Your task to perform on an android device: empty trash in the gmail app Image 0: 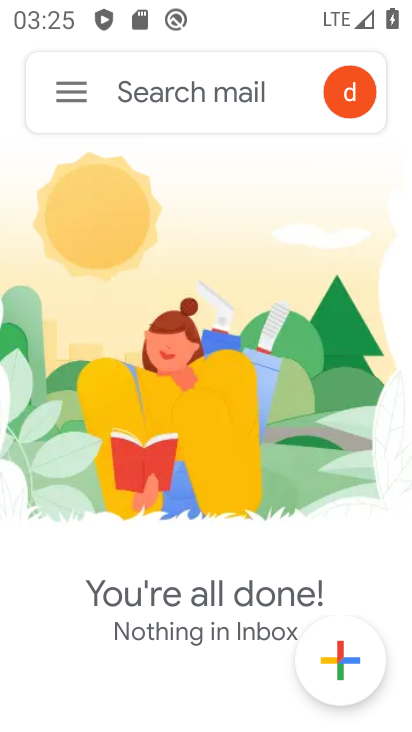
Step 0: click (64, 90)
Your task to perform on an android device: empty trash in the gmail app Image 1: 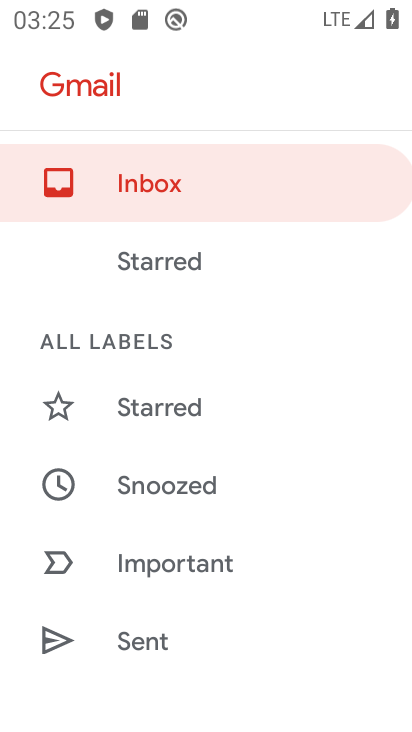
Step 1: drag from (253, 527) to (272, 237)
Your task to perform on an android device: empty trash in the gmail app Image 2: 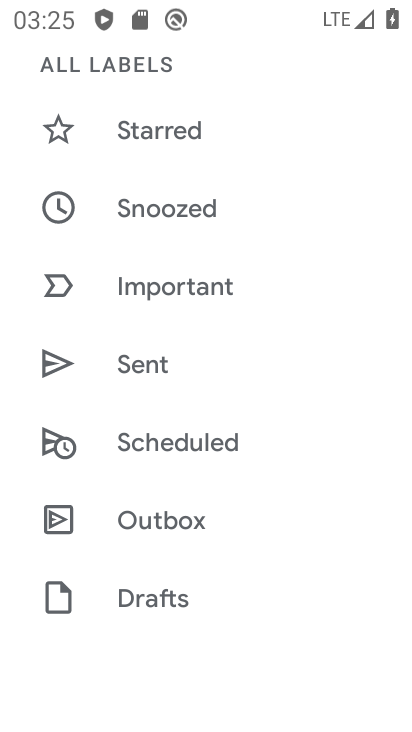
Step 2: drag from (211, 528) to (242, 90)
Your task to perform on an android device: empty trash in the gmail app Image 3: 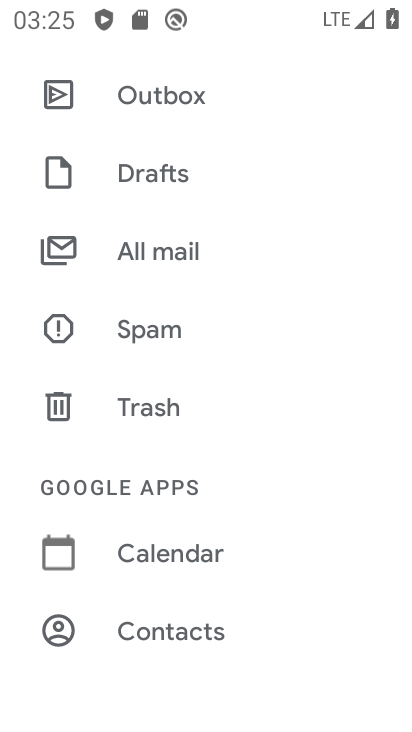
Step 3: drag from (252, 531) to (251, 194)
Your task to perform on an android device: empty trash in the gmail app Image 4: 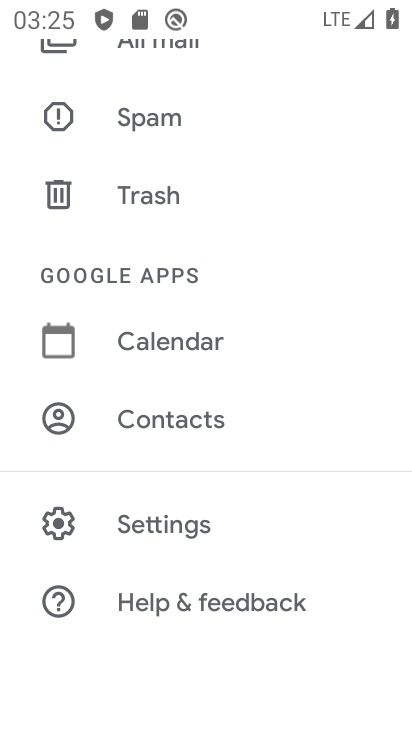
Step 4: click (139, 184)
Your task to perform on an android device: empty trash in the gmail app Image 5: 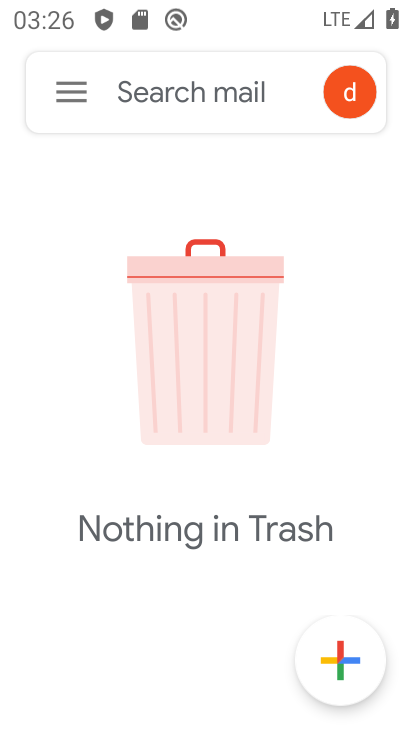
Step 5: task complete